Your task to perform on an android device: remove spam from my inbox in the gmail app Image 0: 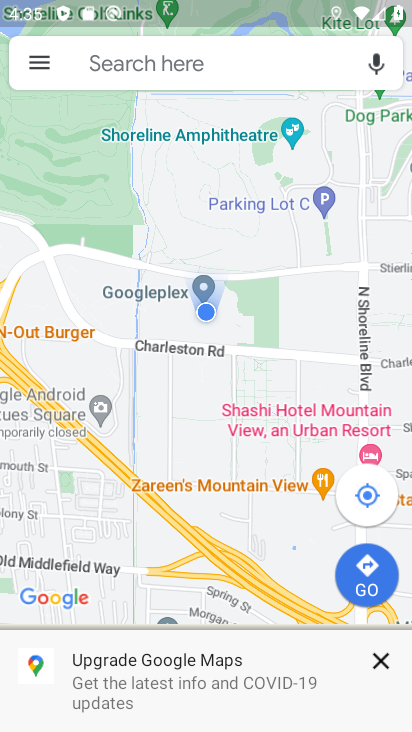
Step 0: press home button
Your task to perform on an android device: remove spam from my inbox in the gmail app Image 1: 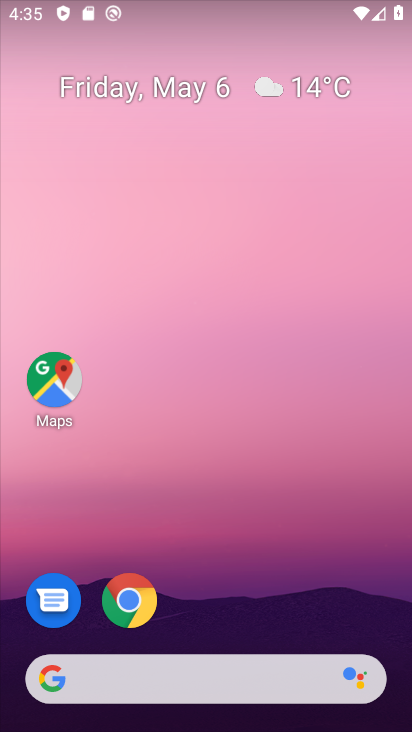
Step 1: drag from (185, 573) to (219, 177)
Your task to perform on an android device: remove spam from my inbox in the gmail app Image 2: 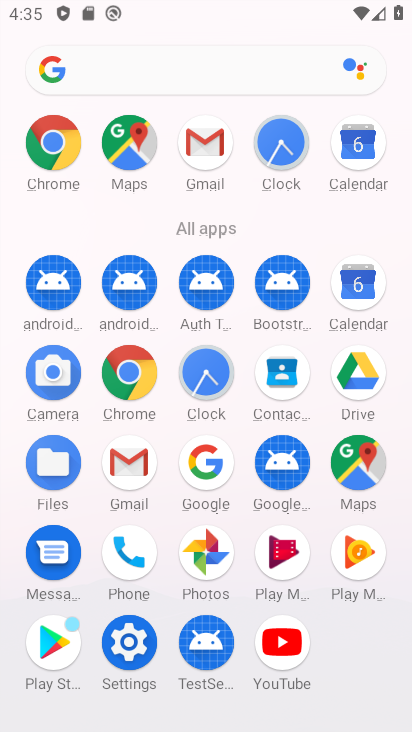
Step 2: click (117, 461)
Your task to perform on an android device: remove spam from my inbox in the gmail app Image 3: 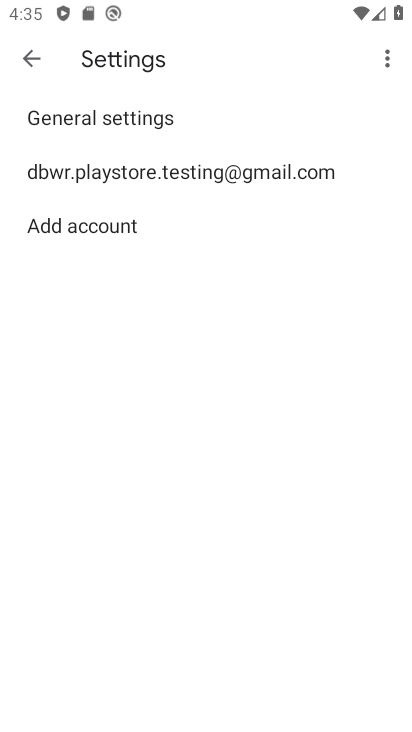
Step 3: press back button
Your task to perform on an android device: remove spam from my inbox in the gmail app Image 4: 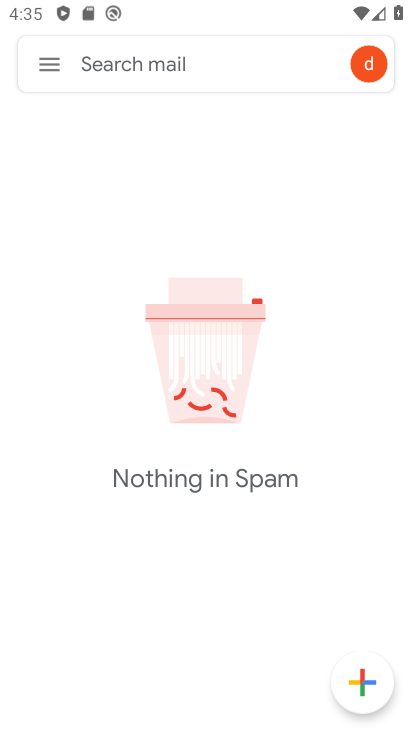
Step 4: click (45, 65)
Your task to perform on an android device: remove spam from my inbox in the gmail app Image 5: 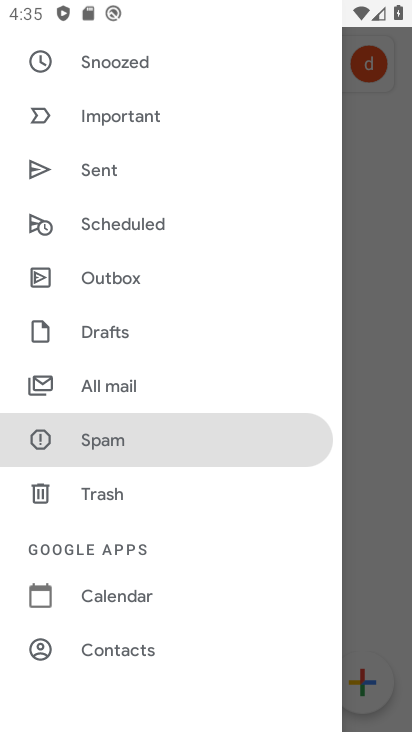
Step 5: click (145, 447)
Your task to perform on an android device: remove spam from my inbox in the gmail app Image 6: 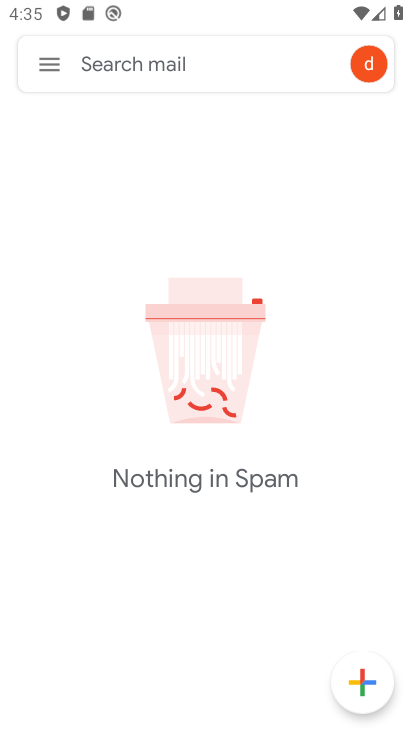
Step 6: task complete